Your task to perform on an android device: Open the web browser Image 0: 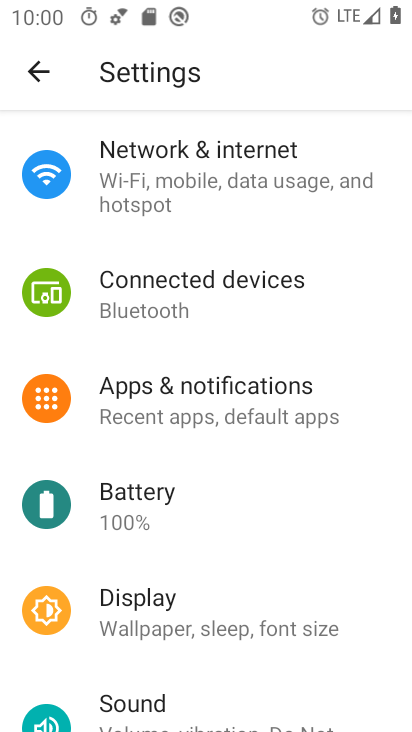
Step 0: press home button
Your task to perform on an android device: Open the web browser Image 1: 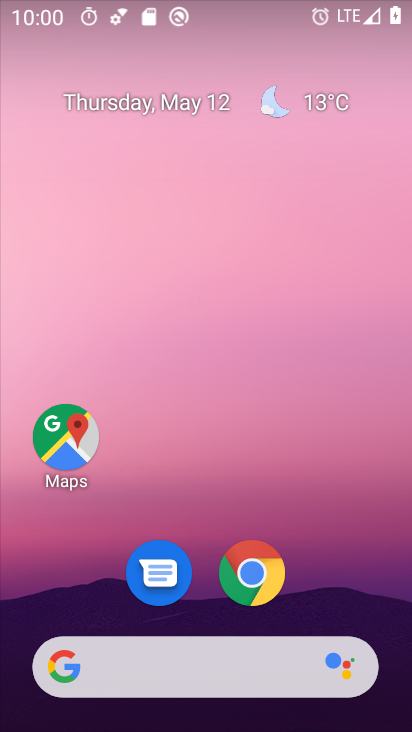
Step 1: click (260, 567)
Your task to perform on an android device: Open the web browser Image 2: 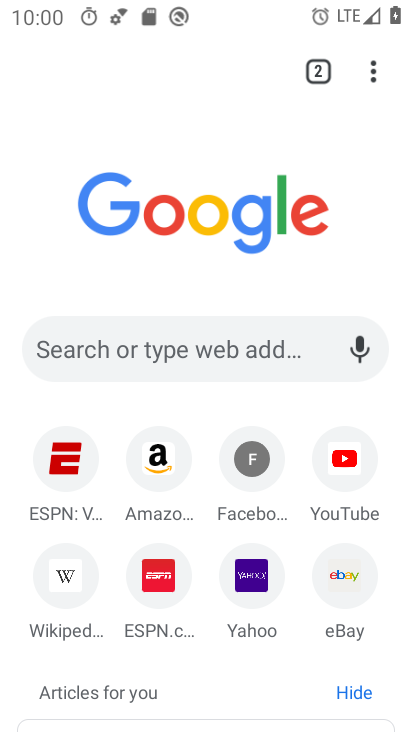
Step 2: task complete